Your task to perform on an android device: turn off smart reply in the gmail app Image 0: 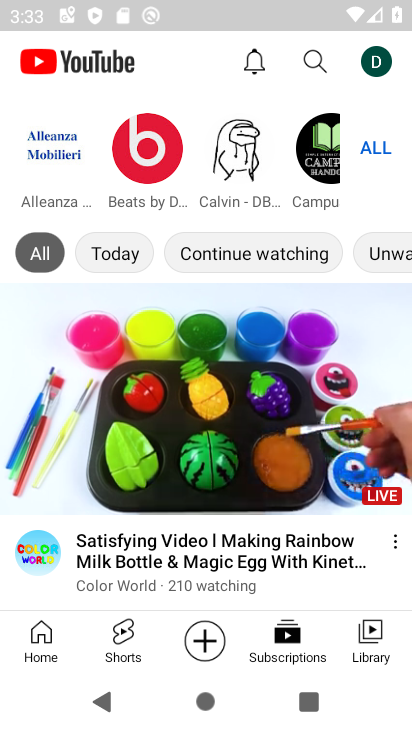
Step 0: press home button
Your task to perform on an android device: turn off smart reply in the gmail app Image 1: 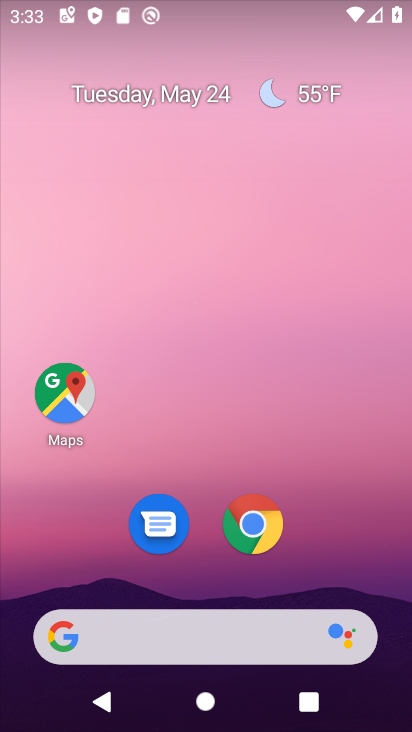
Step 1: drag from (244, 446) to (245, 27)
Your task to perform on an android device: turn off smart reply in the gmail app Image 2: 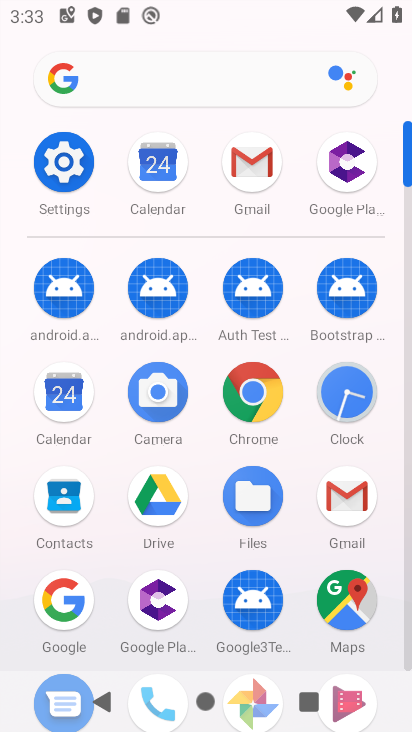
Step 2: click (249, 163)
Your task to perform on an android device: turn off smart reply in the gmail app Image 3: 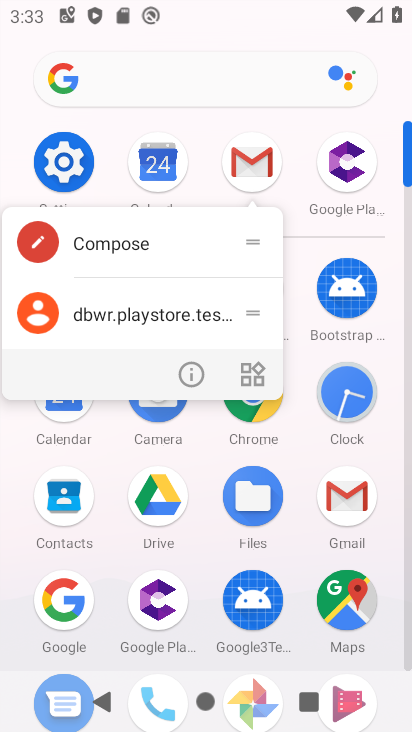
Step 3: click (246, 162)
Your task to perform on an android device: turn off smart reply in the gmail app Image 4: 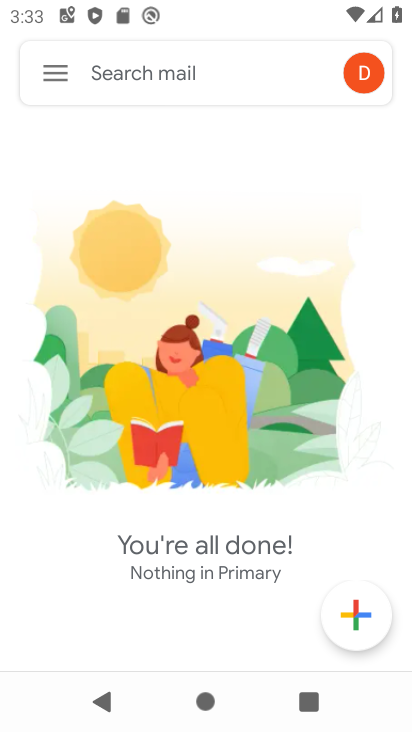
Step 4: click (57, 76)
Your task to perform on an android device: turn off smart reply in the gmail app Image 5: 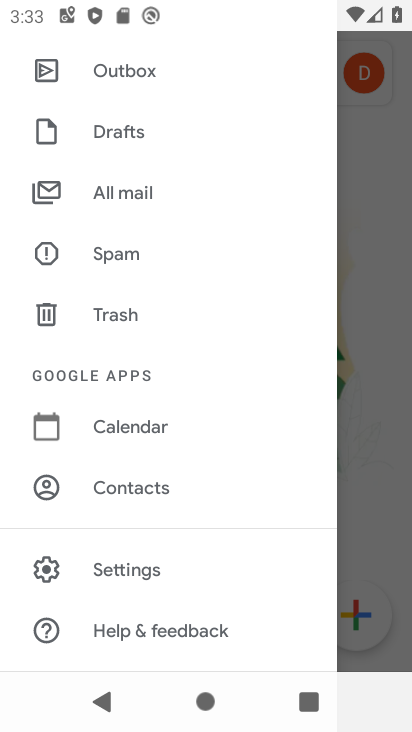
Step 5: click (141, 573)
Your task to perform on an android device: turn off smart reply in the gmail app Image 6: 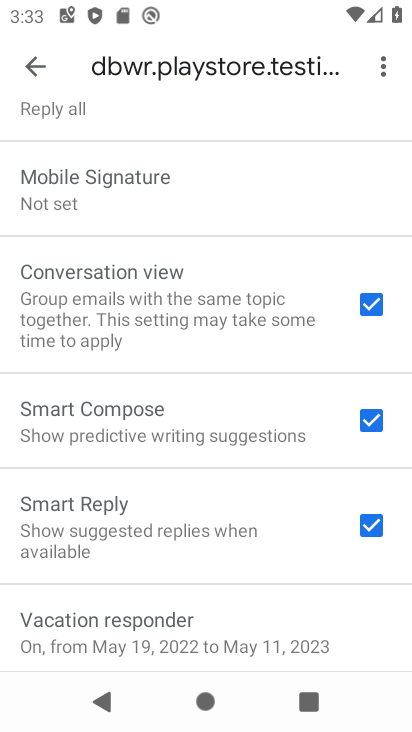
Step 6: task complete